Your task to perform on an android device: Do I have any events today? Image 0: 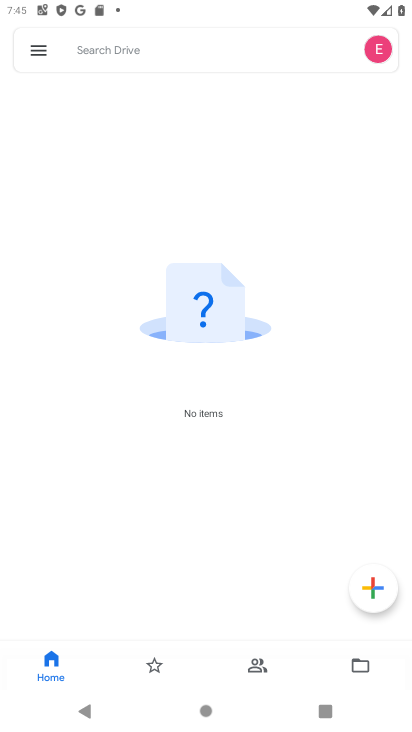
Step 0: press home button
Your task to perform on an android device: Do I have any events today? Image 1: 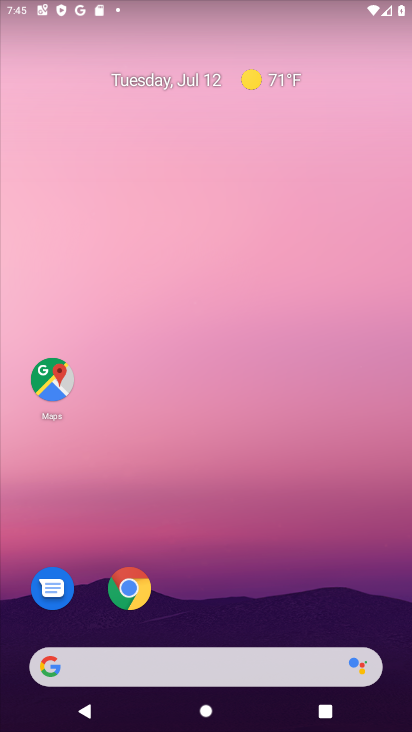
Step 1: drag from (48, 651) to (394, 239)
Your task to perform on an android device: Do I have any events today? Image 2: 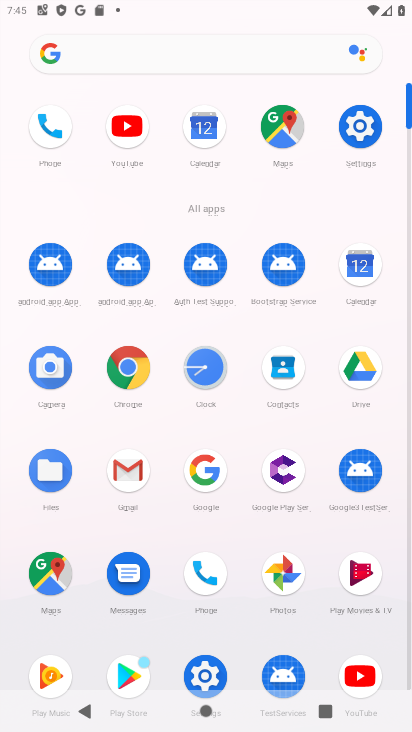
Step 2: click (354, 262)
Your task to perform on an android device: Do I have any events today? Image 3: 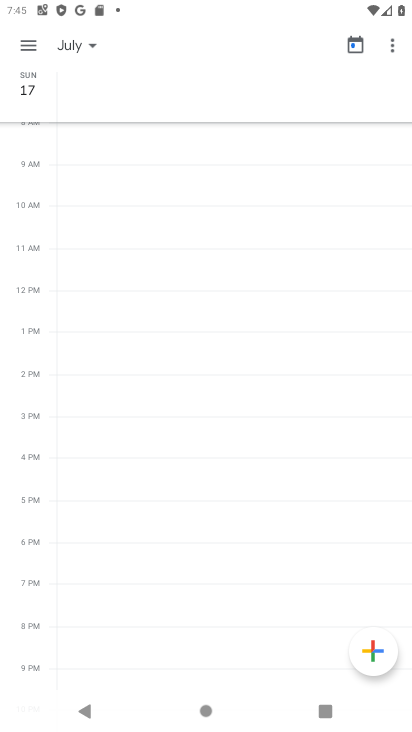
Step 3: click (25, 52)
Your task to perform on an android device: Do I have any events today? Image 4: 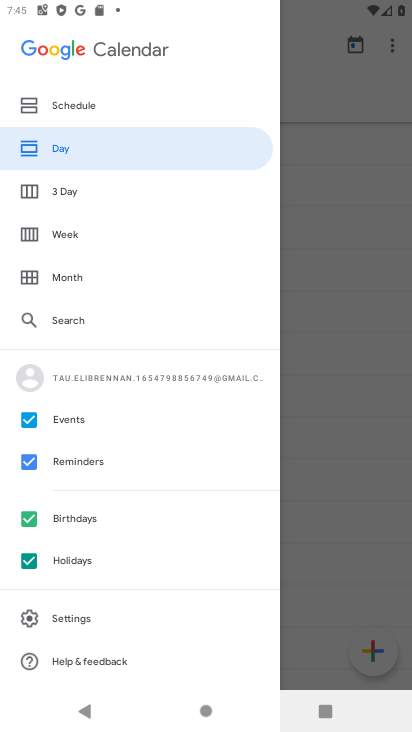
Step 4: click (83, 268)
Your task to perform on an android device: Do I have any events today? Image 5: 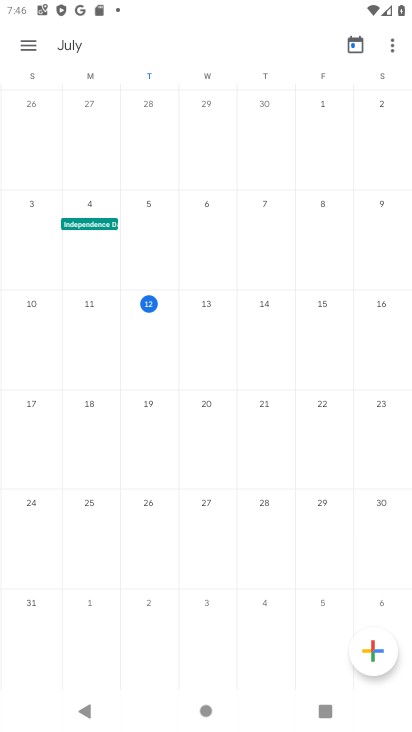
Step 5: task complete